Your task to perform on an android device: delete a single message in the gmail app Image 0: 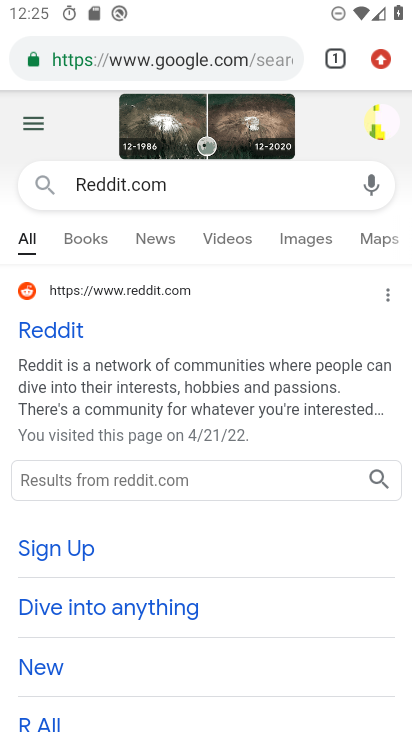
Step 0: press home button
Your task to perform on an android device: delete a single message in the gmail app Image 1: 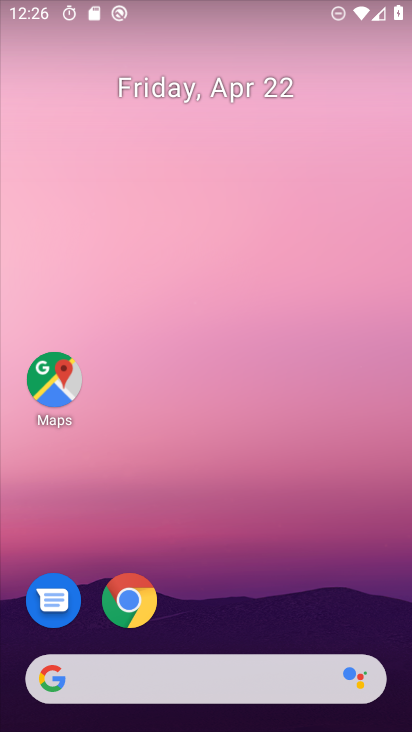
Step 1: drag from (229, 538) to (199, 69)
Your task to perform on an android device: delete a single message in the gmail app Image 2: 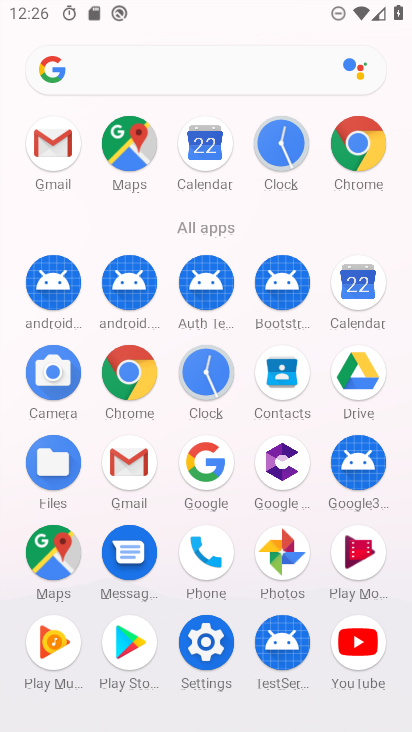
Step 2: click (54, 143)
Your task to perform on an android device: delete a single message in the gmail app Image 3: 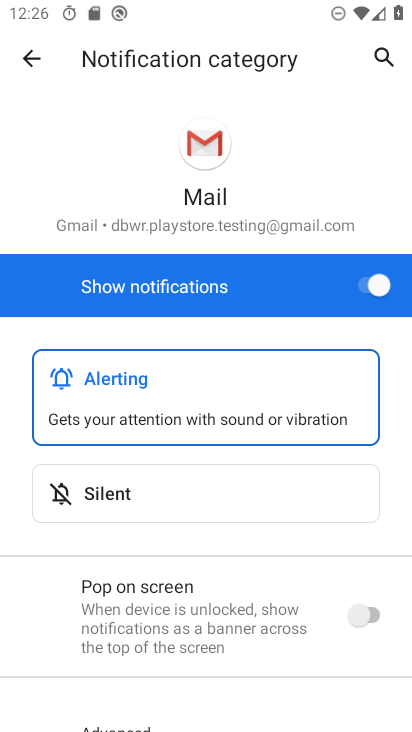
Step 3: press back button
Your task to perform on an android device: delete a single message in the gmail app Image 4: 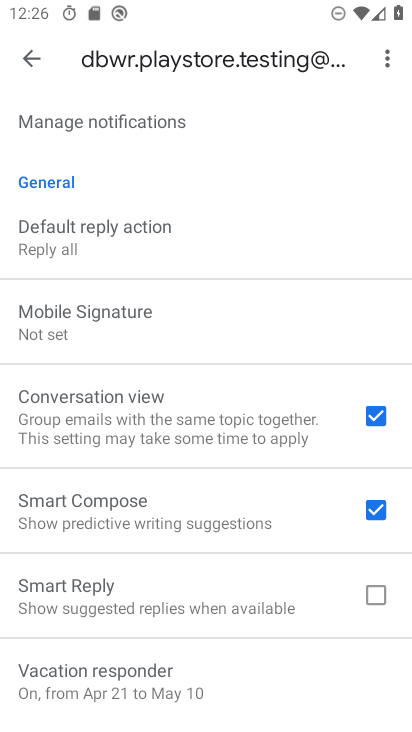
Step 4: press back button
Your task to perform on an android device: delete a single message in the gmail app Image 5: 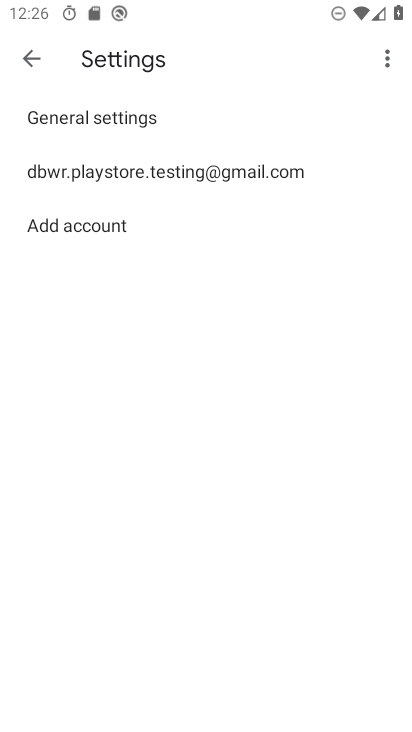
Step 5: press back button
Your task to perform on an android device: delete a single message in the gmail app Image 6: 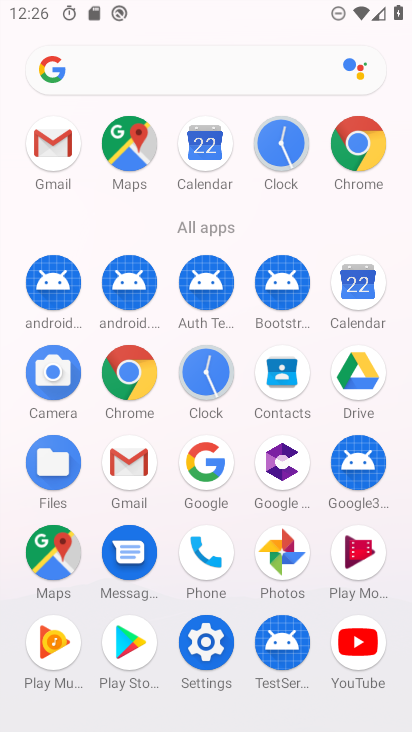
Step 6: click (56, 154)
Your task to perform on an android device: delete a single message in the gmail app Image 7: 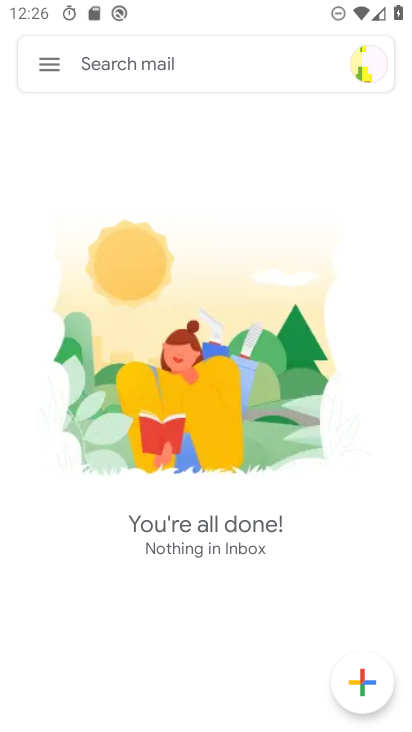
Step 7: click (52, 61)
Your task to perform on an android device: delete a single message in the gmail app Image 8: 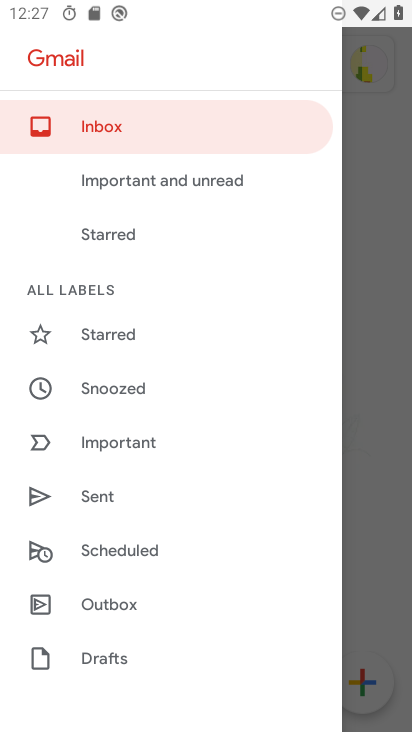
Step 8: drag from (135, 537) to (183, 450)
Your task to perform on an android device: delete a single message in the gmail app Image 9: 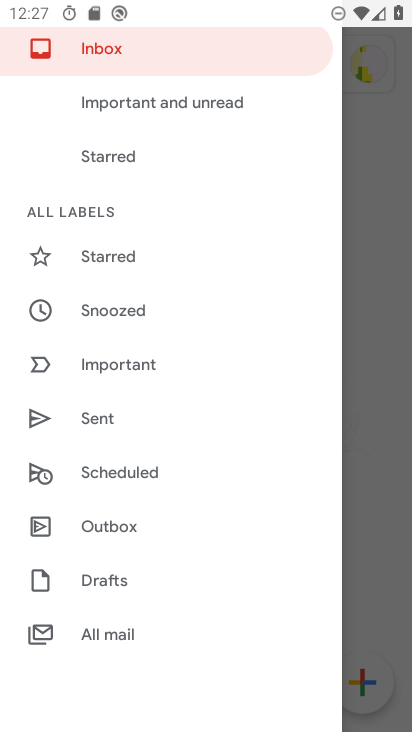
Step 9: click (118, 639)
Your task to perform on an android device: delete a single message in the gmail app Image 10: 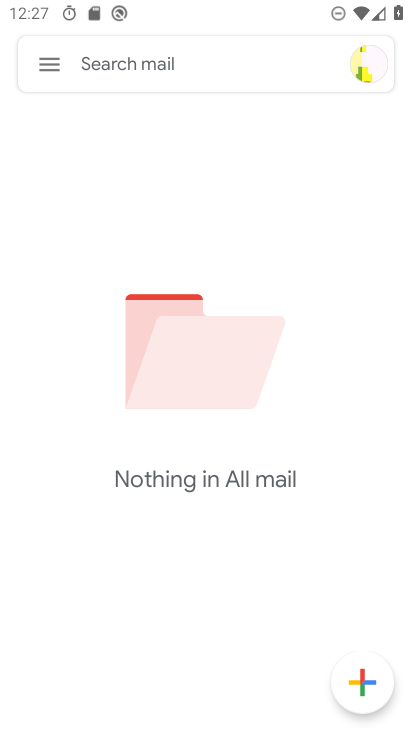
Step 10: task complete